Your task to perform on an android device: Go to Android settings Image 0: 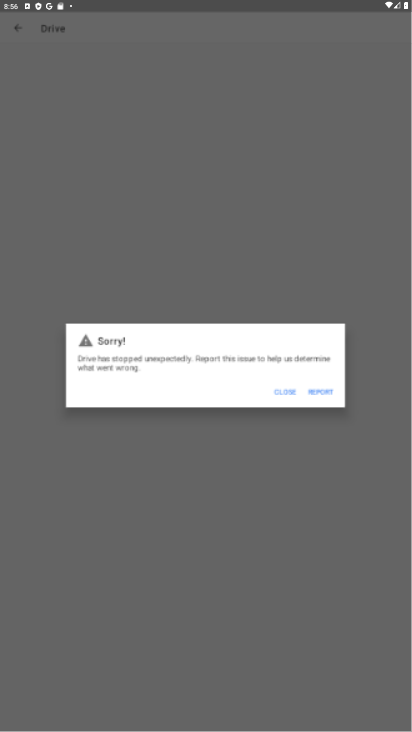
Step 0: drag from (340, 622) to (170, 130)
Your task to perform on an android device: Go to Android settings Image 1: 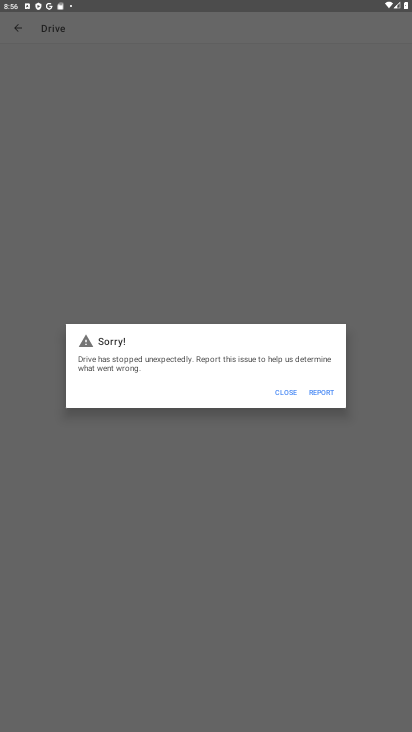
Step 1: press home button
Your task to perform on an android device: Go to Android settings Image 2: 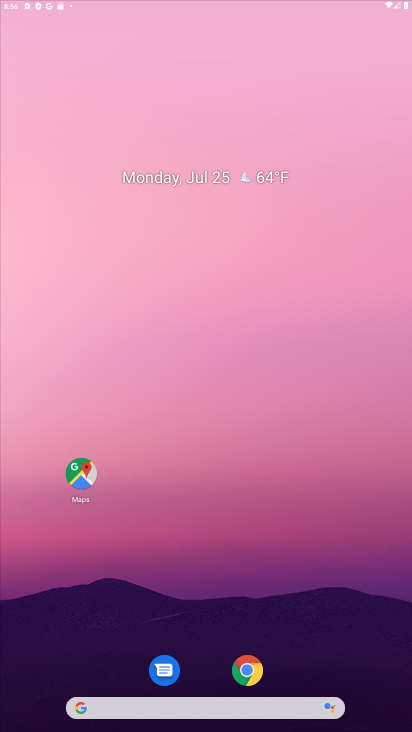
Step 2: drag from (287, 468) to (183, 33)
Your task to perform on an android device: Go to Android settings Image 3: 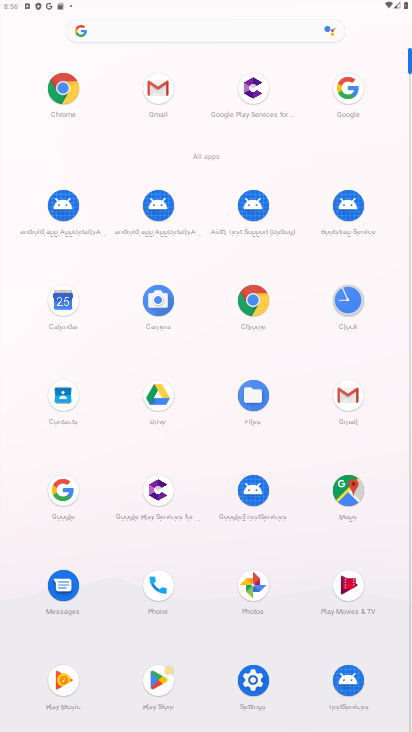
Step 3: click (254, 681)
Your task to perform on an android device: Go to Android settings Image 4: 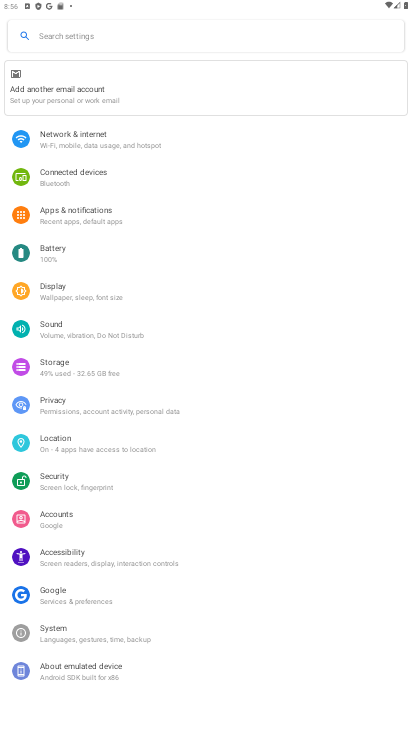
Step 4: task complete